Your task to perform on an android device: Show me popular games on the Play Store Image 0: 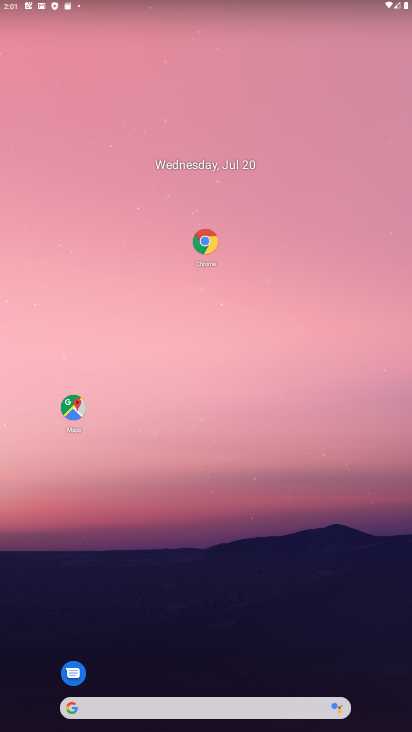
Step 0: drag from (193, 550) to (224, 68)
Your task to perform on an android device: Show me popular games on the Play Store Image 1: 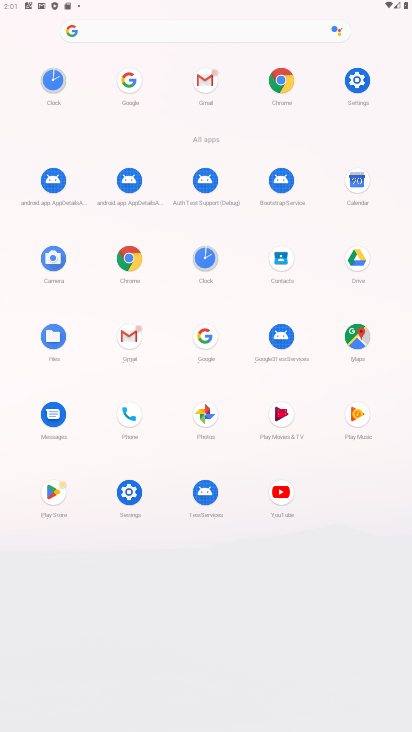
Step 1: click (57, 493)
Your task to perform on an android device: Show me popular games on the Play Store Image 2: 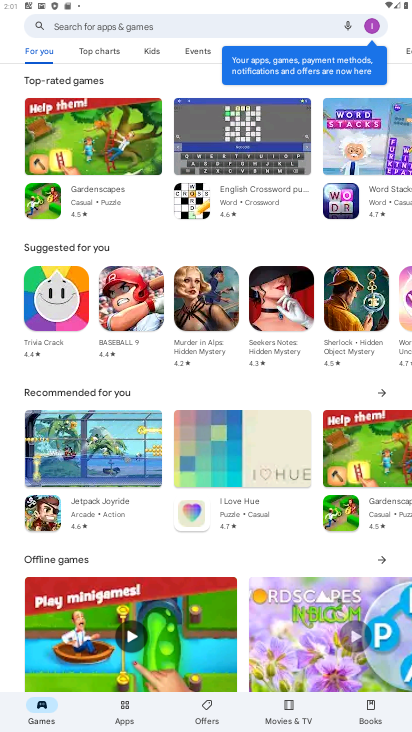
Step 2: task complete